Your task to perform on an android device: empty trash in the gmail app Image 0: 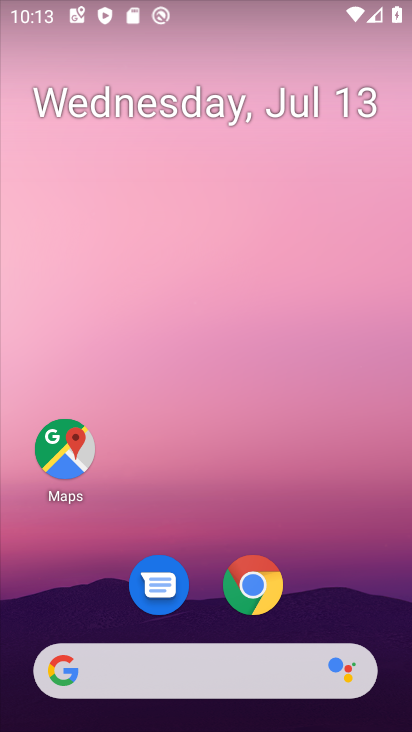
Step 0: drag from (248, 508) to (251, 36)
Your task to perform on an android device: empty trash in the gmail app Image 1: 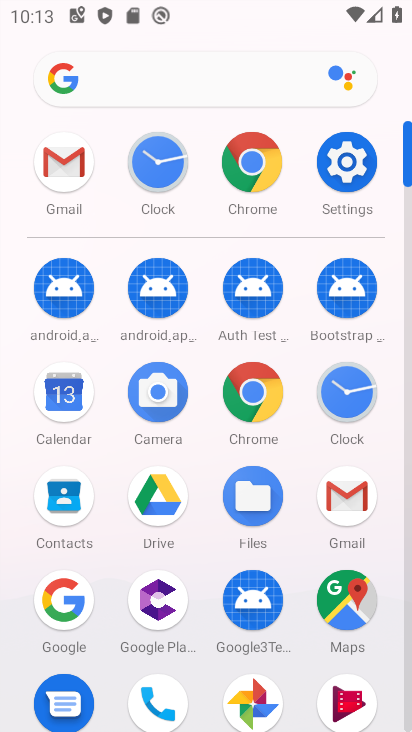
Step 1: click (68, 167)
Your task to perform on an android device: empty trash in the gmail app Image 2: 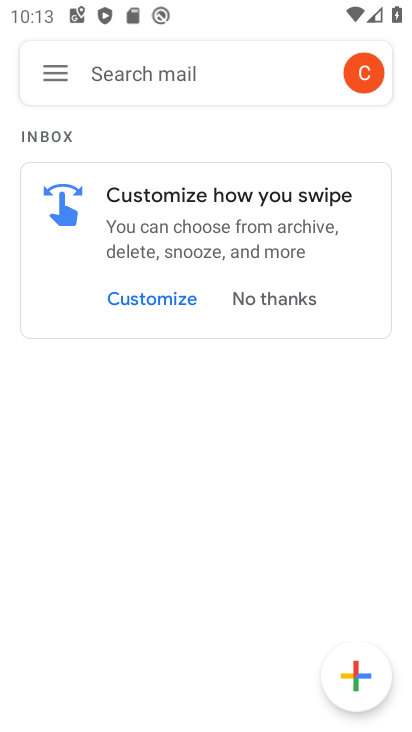
Step 2: click (52, 70)
Your task to perform on an android device: empty trash in the gmail app Image 3: 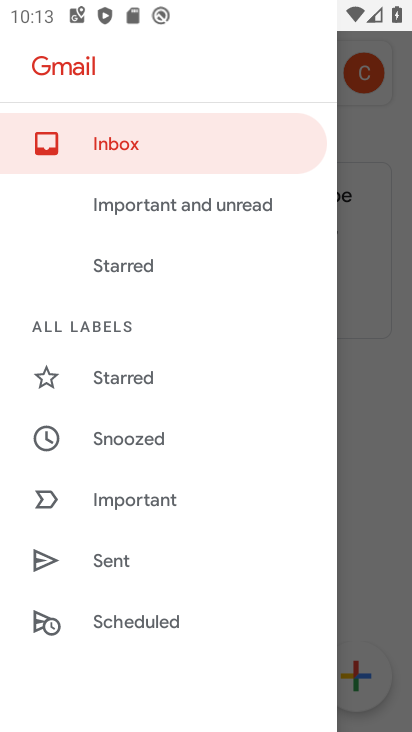
Step 3: drag from (156, 536) to (172, 125)
Your task to perform on an android device: empty trash in the gmail app Image 4: 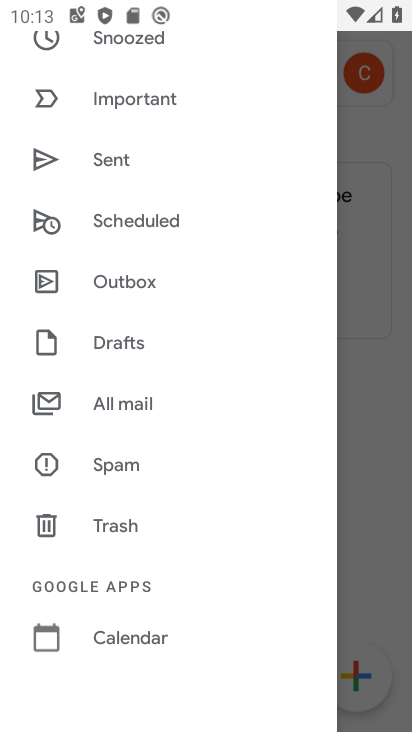
Step 4: click (113, 516)
Your task to perform on an android device: empty trash in the gmail app Image 5: 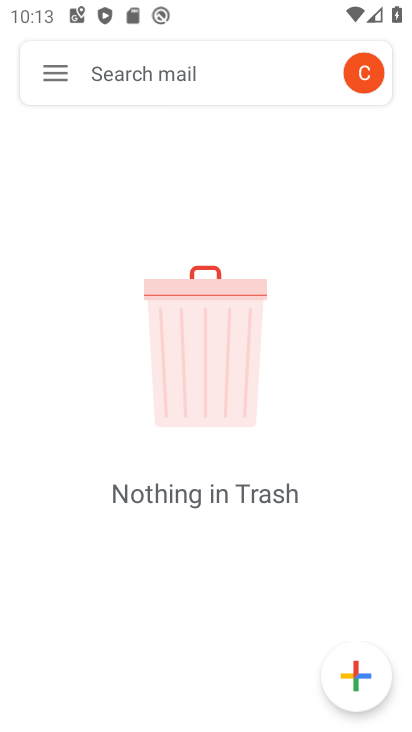
Step 5: task complete